Your task to perform on an android device: install app "Calculator" Image 0: 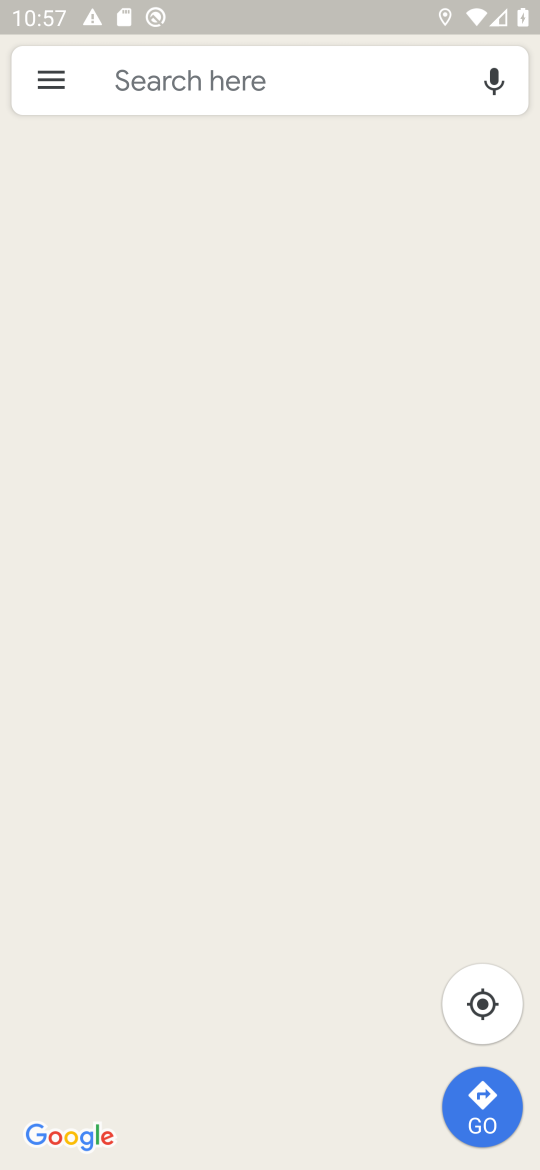
Step 0: press home button
Your task to perform on an android device: install app "Calculator" Image 1: 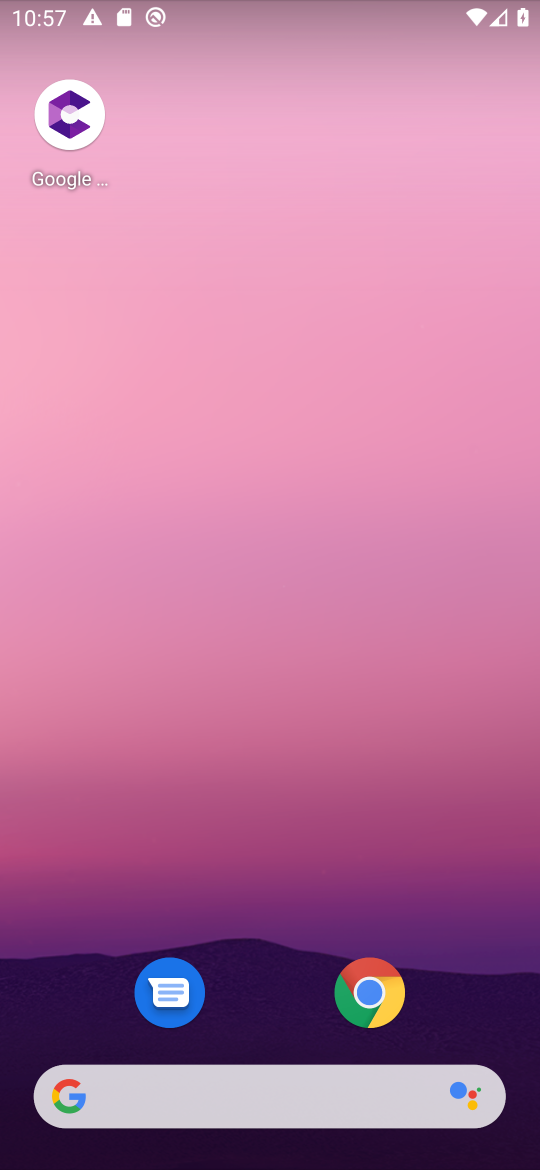
Step 1: drag from (178, 1095) to (294, 182)
Your task to perform on an android device: install app "Calculator" Image 2: 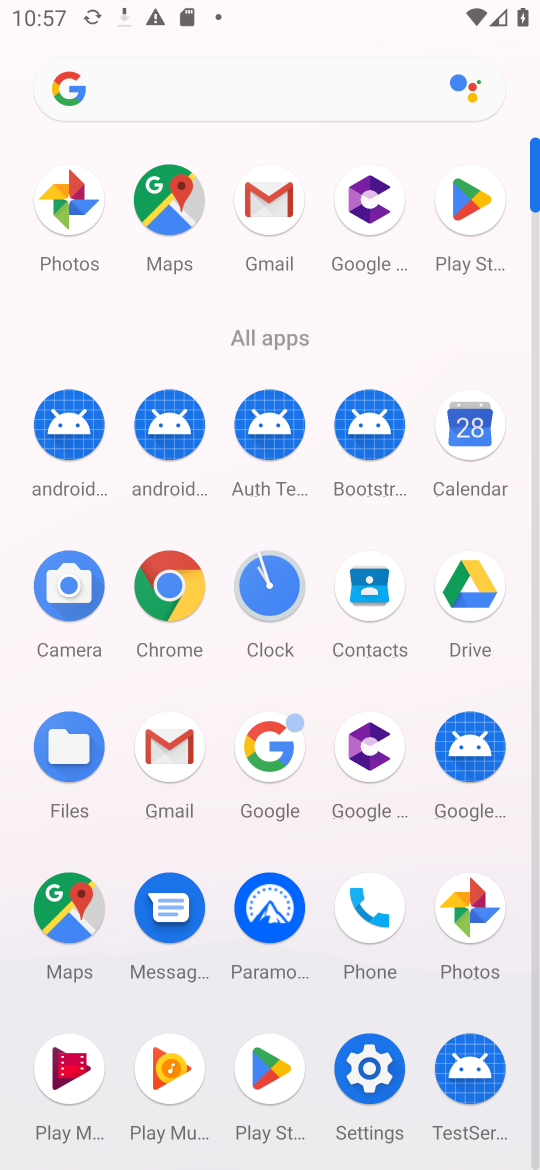
Step 2: click (468, 202)
Your task to perform on an android device: install app "Calculator" Image 3: 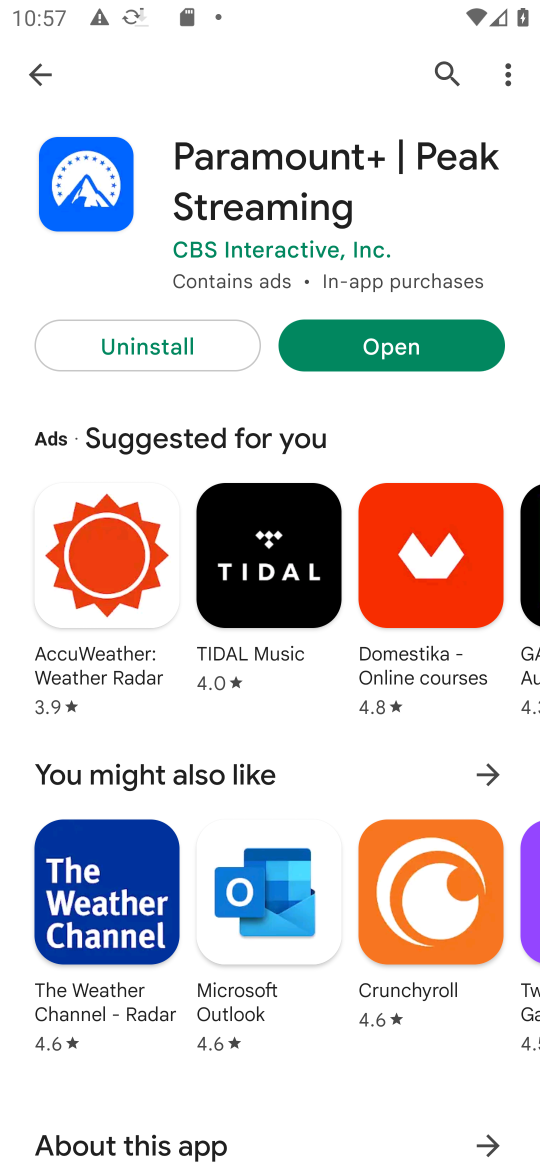
Step 3: click (436, 74)
Your task to perform on an android device: install app "Calculator" Image 4: 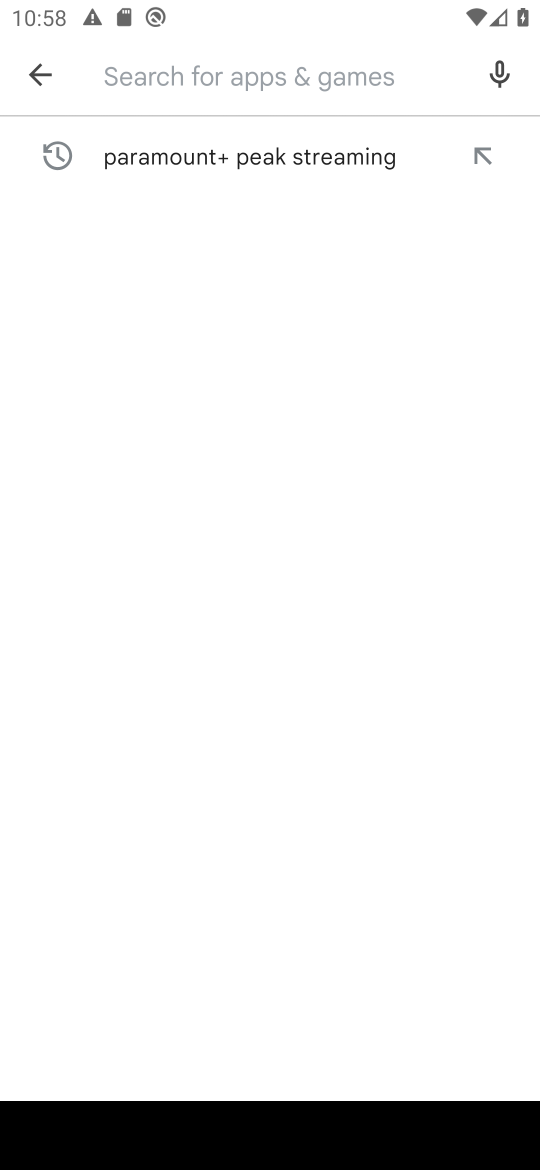
Step 4: type "Calculator"
Your task to perform on an android device: install app "Calculator" Image 5: 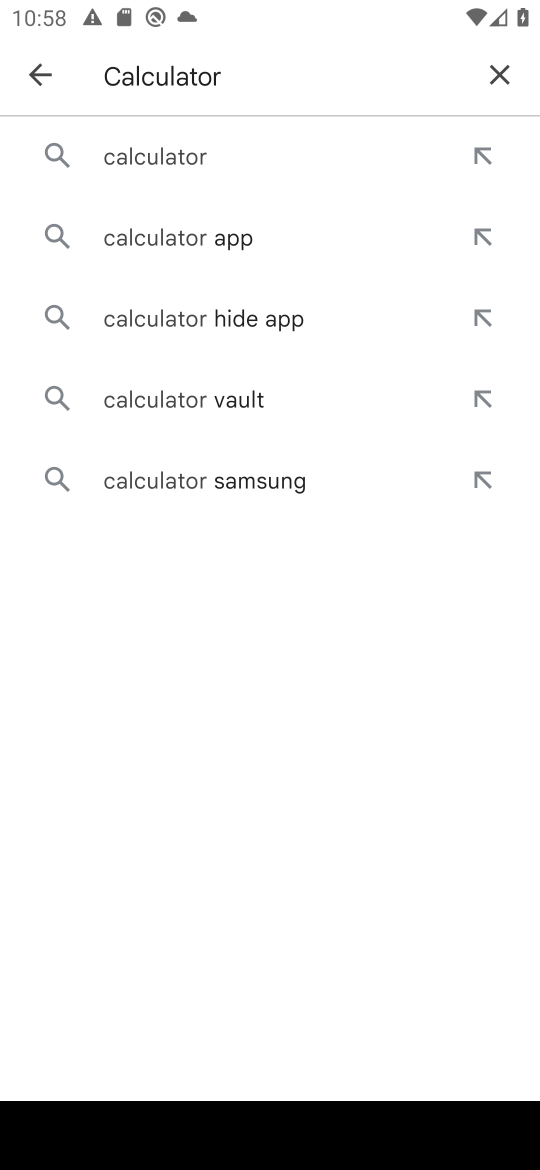
Step 5: click (106, 157)
Your task to perform on an android device: install app "Calculator" Image 6: 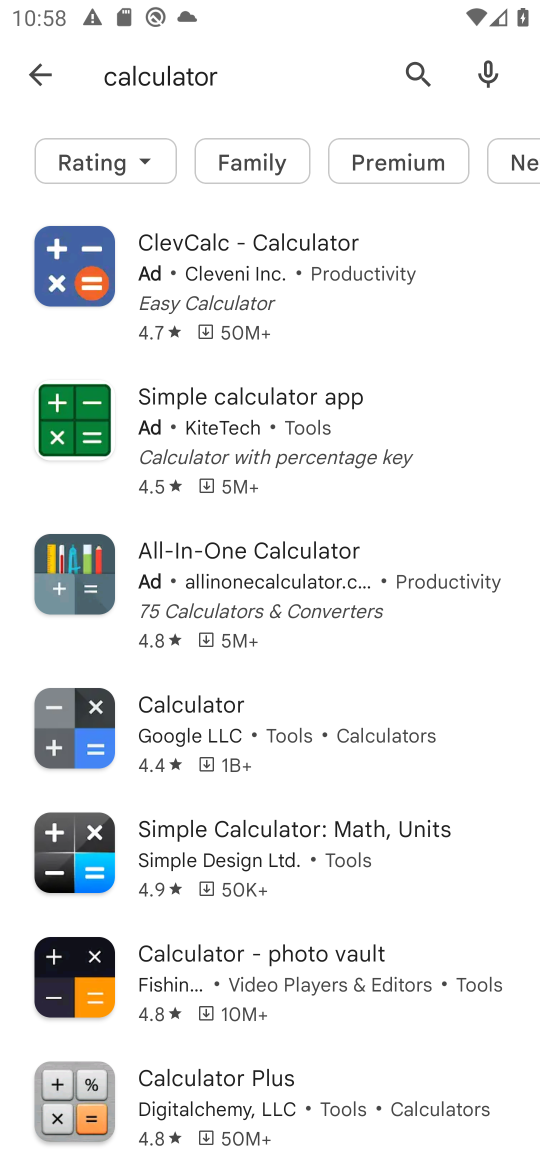
Step 6: click (216, 709)
Your task to perform on an android device: install app "Calculator" Image 7: 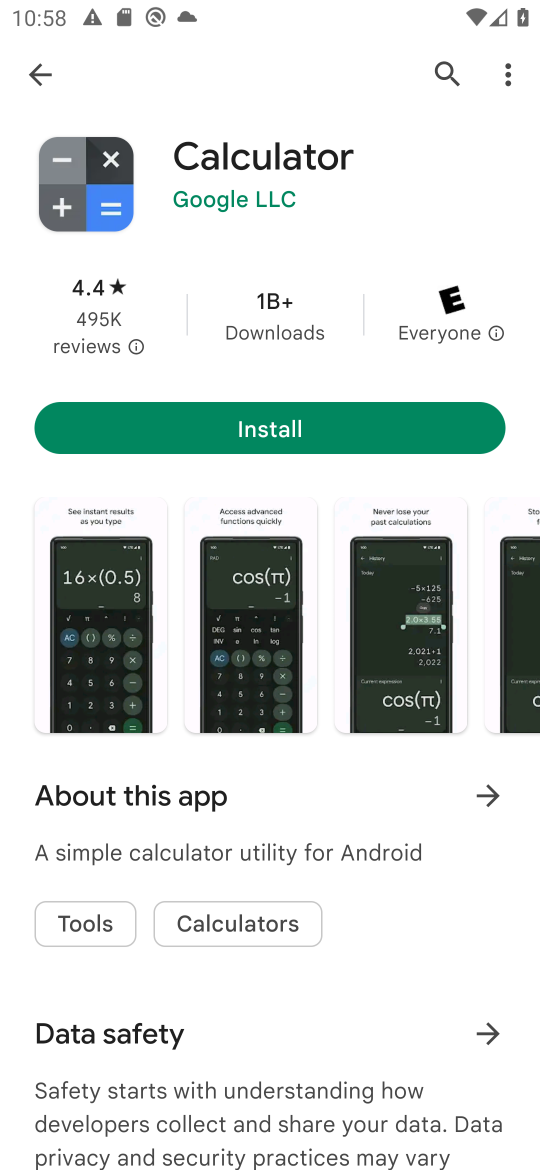
Step 7: click (274, 425)
Your task to perform on an android device: install app "Calculator" Image 8: 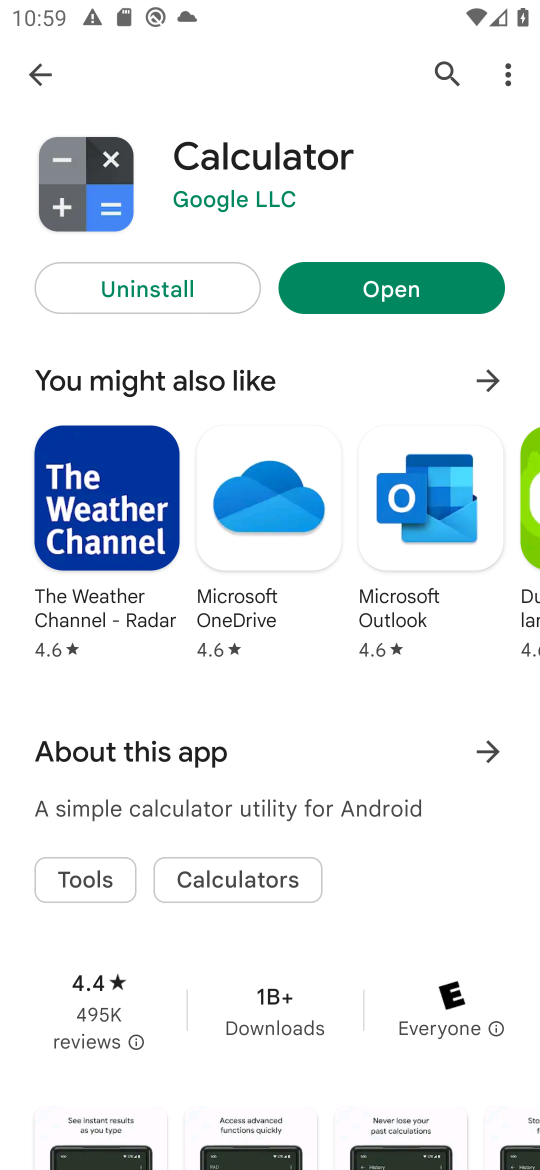
Step 8: task complete